Your task to perform on an android device: turn on the 24-hour format for clock Image 0: 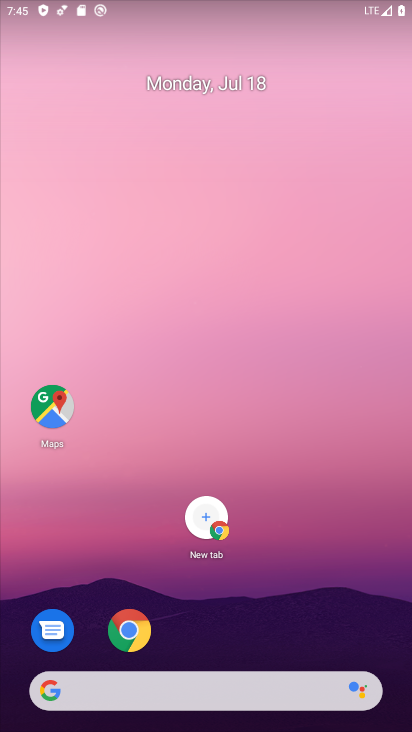
Step 0: drag from (170, 654) to (199, 219)
Your task to perform on an android device: turn on the 24-hour format for clock Image 1: 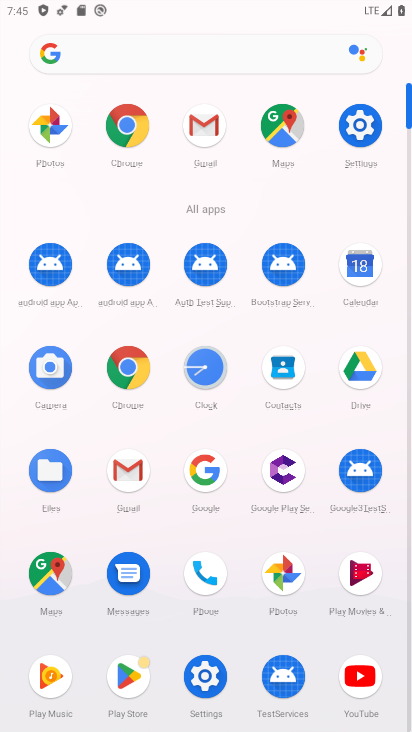
Step 1: click (215, 370)
Your task to perform on an android device: turn on the 24-hour format for clock Image 2: 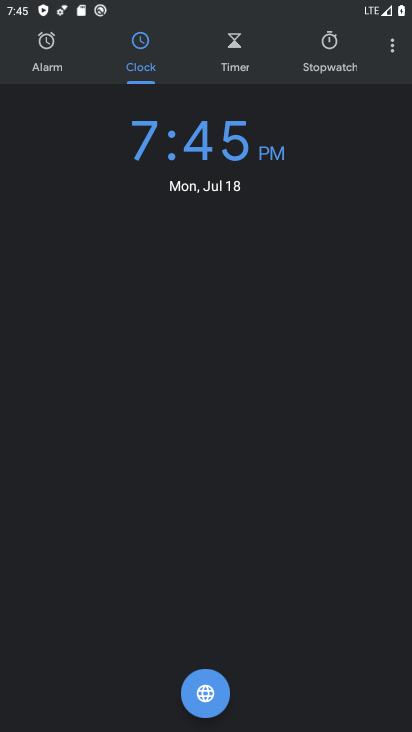
Step 2: click (393, 47)
Your task to perform on an android device: turn on the 24-hour format for clock Image 3: 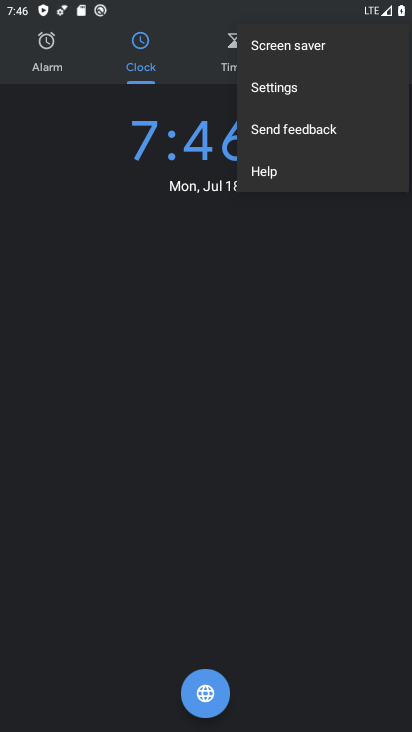
Step 3: click (292, 84)
Your task to perform on an android device: turn on the 24-hour format for clock Image 4: 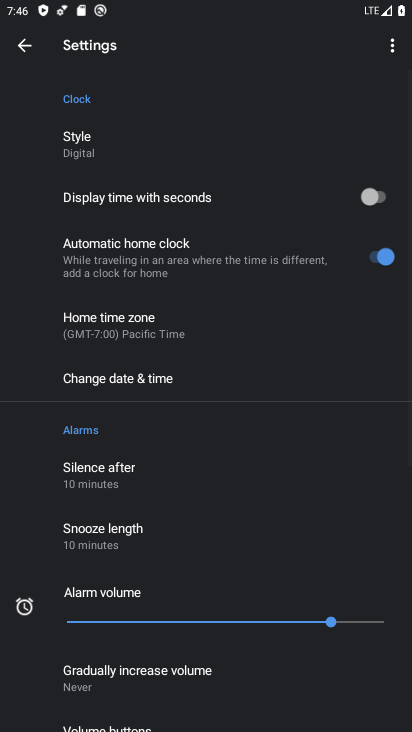
Step 4: click (118, 377)
Your task to perform on an android device: turn on the 24-hour format for clock Image 5: 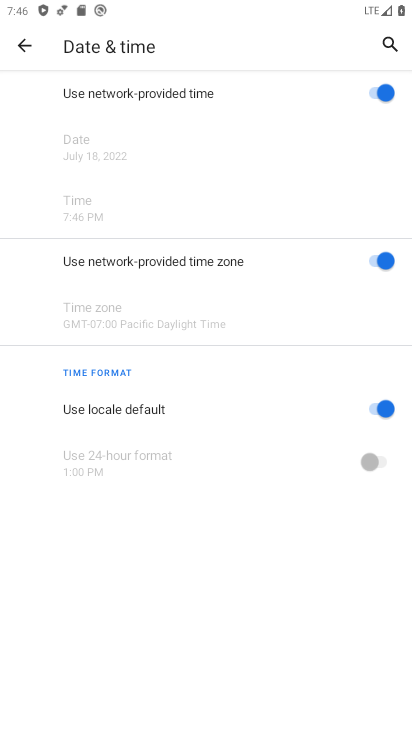
Step 5: click (378, 406)
Your task to perform on an android device: turn on the 24-hour format for clock Image 6: 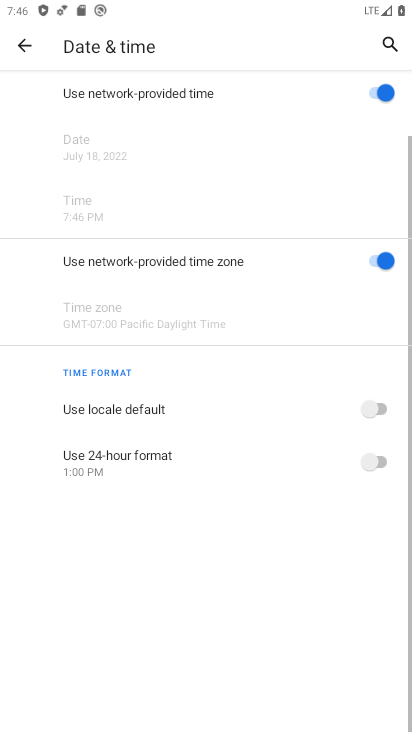
Step 6: click (377, 460)
Your task to perform on an android device: turn on the 24-hour format for clock Image 7: 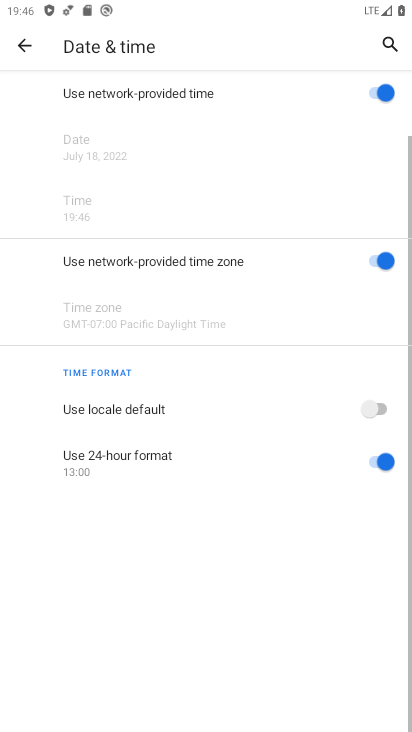
Step 7: task complete